Your task to perform on an android device: What's the weather going to be tomorrow? Image 0: 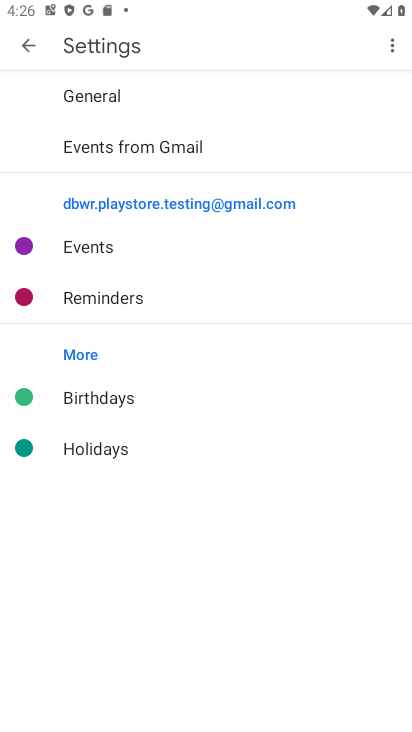
Step 0: press home button
Your task to perform on an android device: What's the weather going to be tomorrow? Image 1: 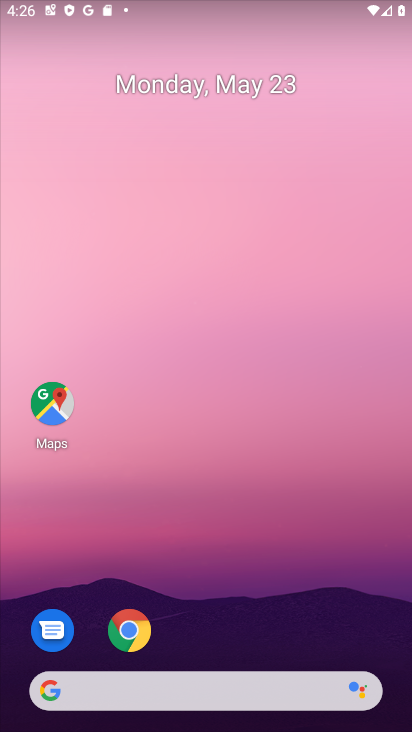
Step 1: drag from (29, 252) to (410, 306)
Your task to perform on an android device: What's the weather going to be tomorrow? Image 2: 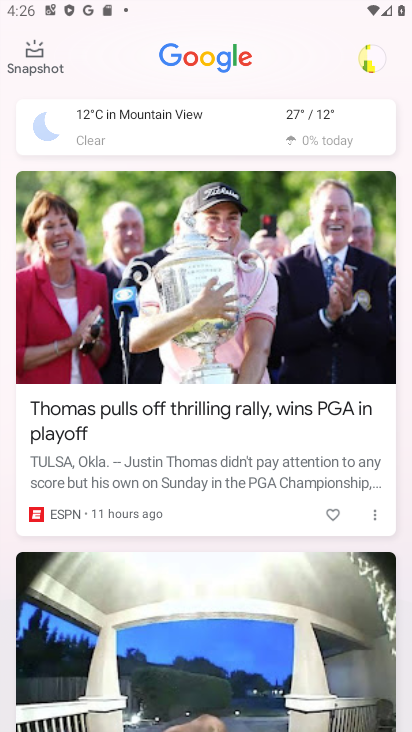
Step 2: click (308, 121)
Your task to perform on an android device: What's the weather going to be tomorrow? Image 3: 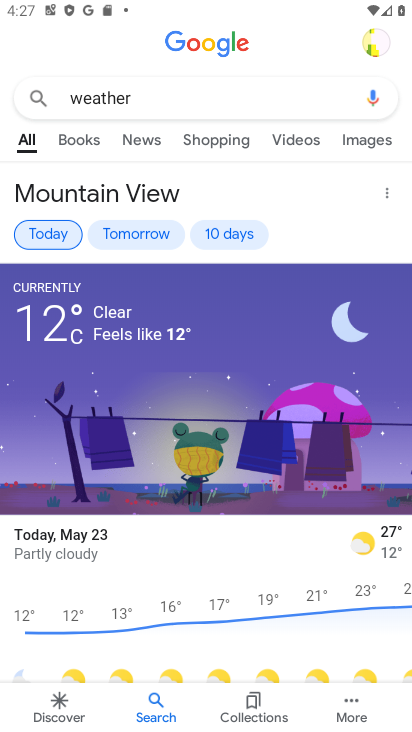
Step 3: click (138, 227)
Your task to perform on an android device: What's the weather going to be tomorrow? Image 4: 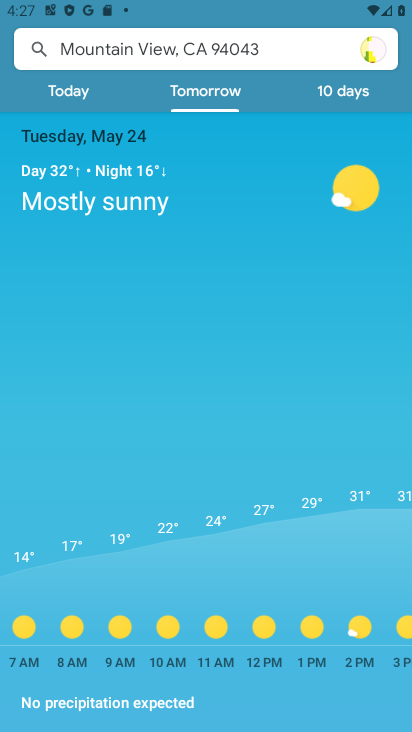
Step 4: task complete